Your task to perform on an android device: choose inbox layout in the gmail app Image 0: 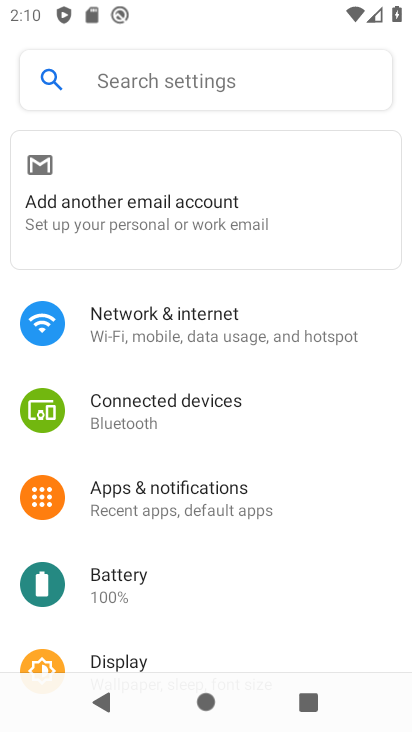
Step 0: press home button
Your task to perform on an android device: choose inbox layout in the gmail app Image 1: 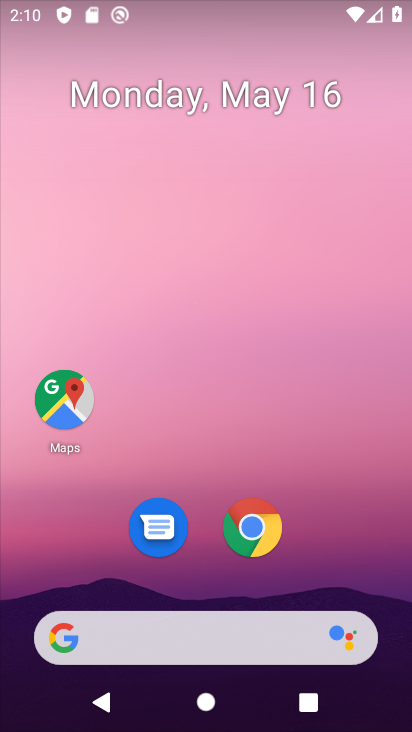
Step 1: drag from (208, 584) to (114, 0)
Your task to perform on an android device: choose inbox layout in the gmail app Image 2: 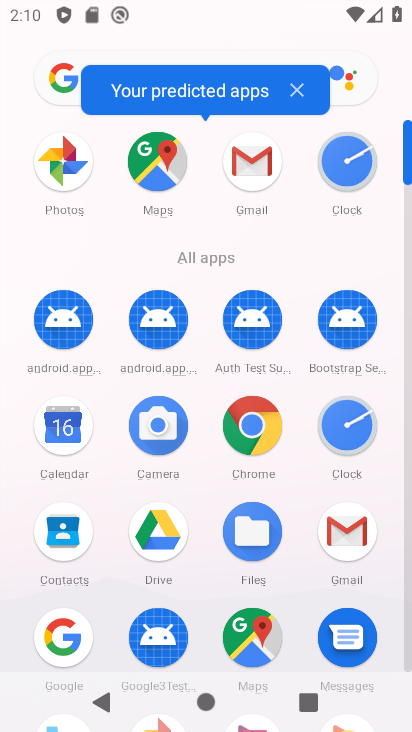
Step 2: click (366, 526)
Your task to perform on an android device: choose inbox layout in the gmail app Image 3: 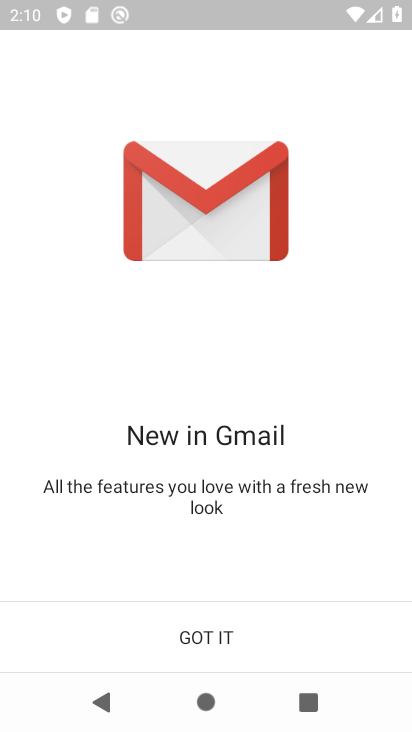
Step 3: click (220, 635)
Your task to perform on an android device: choose inbox layout in the gmail app Image 4: 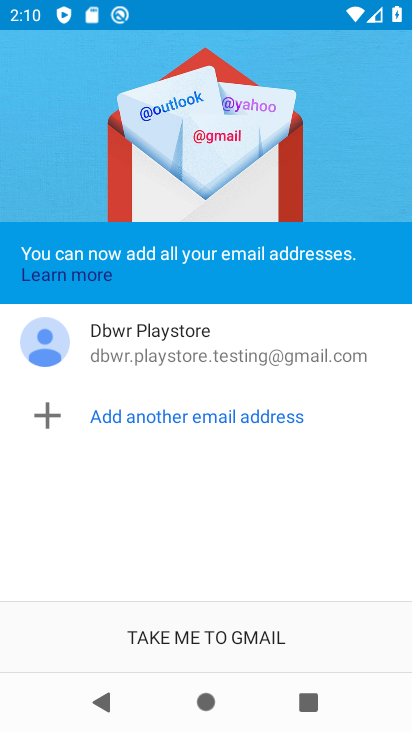
Step 4: click (219, 638)
Your task to perform on an android device: choose inbox layout in the gmail app Image 5: 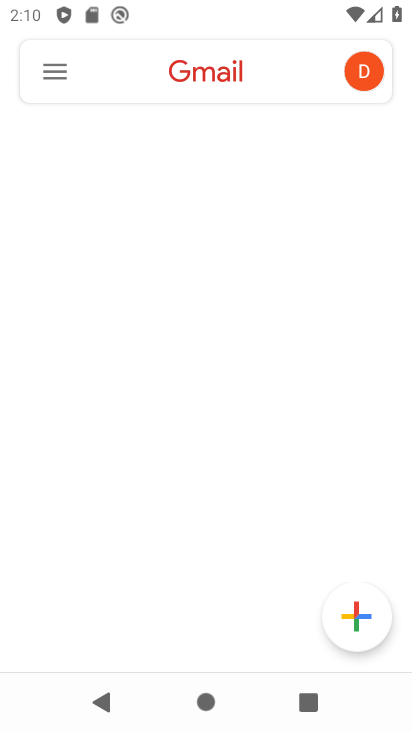
Step 5: click (220, 639)
Your task to perform on an android device: choose inbox layout in the gmail app Image 6: 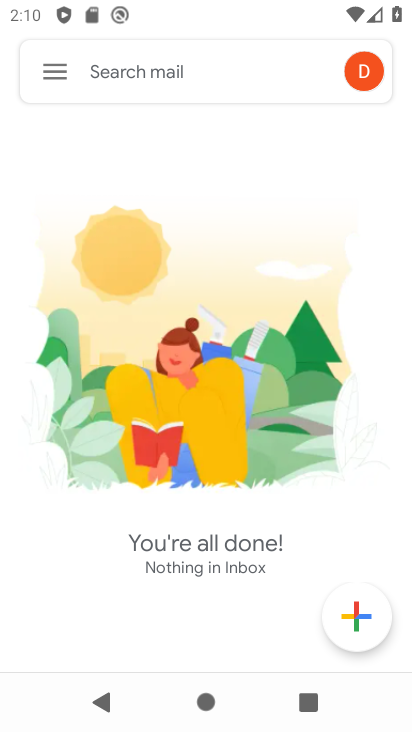
Step 6: task complete